Your task to perform on an android device: Open Google Chrome Image 0: 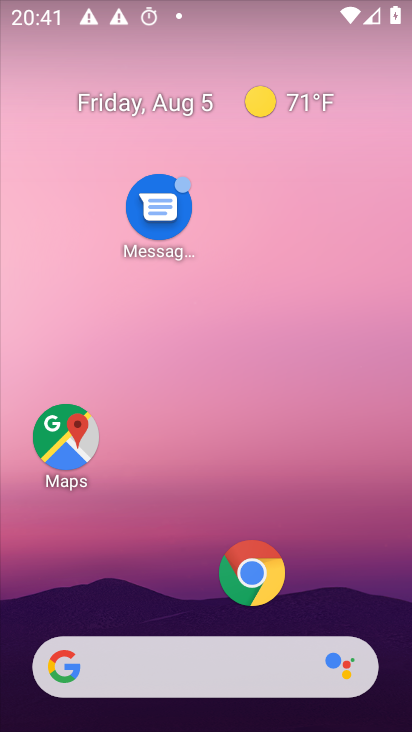
Step 0: press home button
Your task to perform on an android device: Open Google Chrome Image 1: 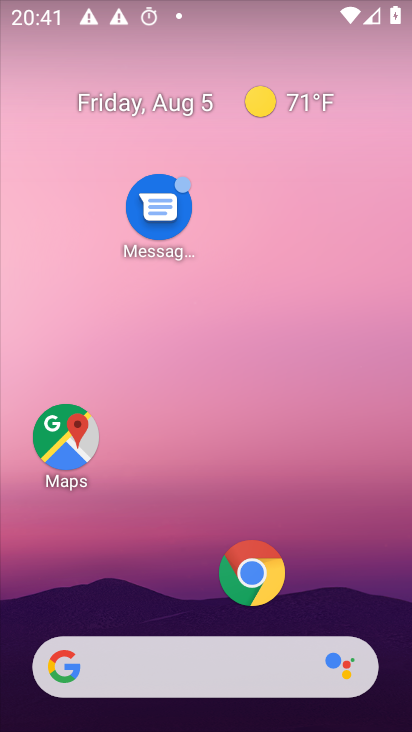
Step 1: click (248, 566)
Your task to perform on an android device: Open Google Chrome Image 2: 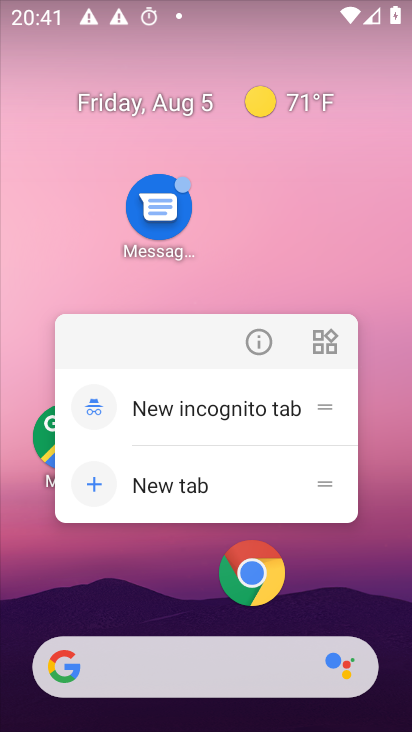
Step 2: click (245, 564)
Your task to perform on an android device: Open Google Chrome Image 3: 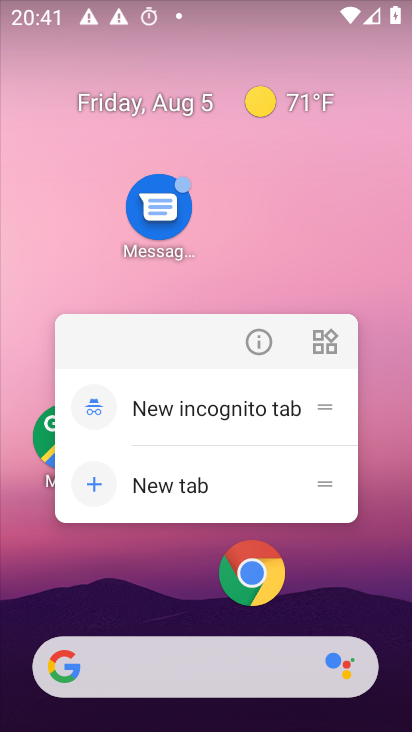
Step 3: click (316, 588)
Your task to perform on an android device: Open Google Chrome Image 4: 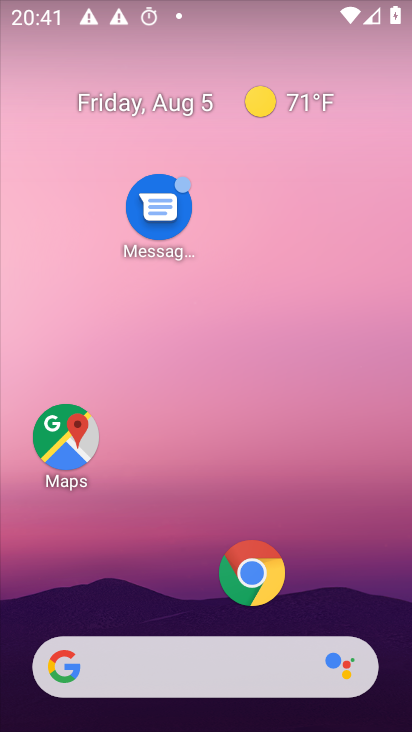
Step 4: drag from (332, 624) to (329, 4)
Your task to perform on an android device: Open Google Chrome Image 5: 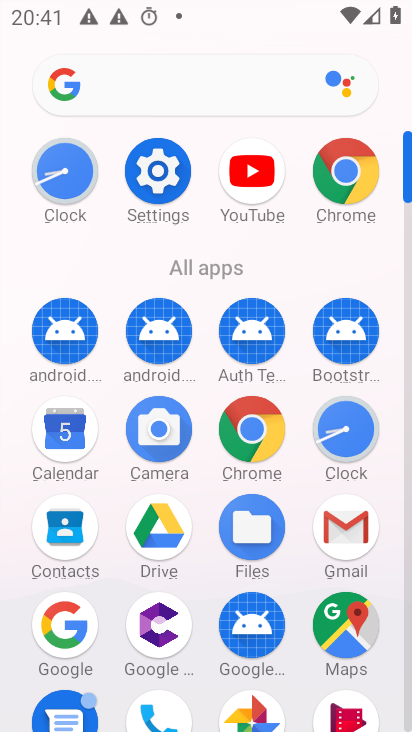
Step 5: click (342, 163)
Your task to perform on an android device: Open Google Chrome Image 6: 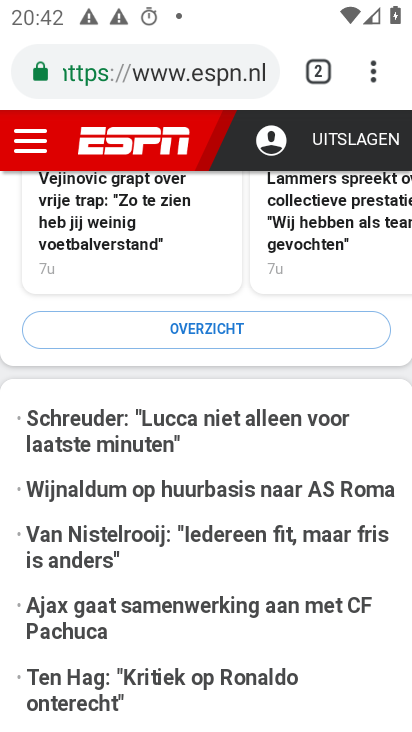
Step 6: click (319, 65)
Your task to perform on an android device: Open Google Chrome Image 7: 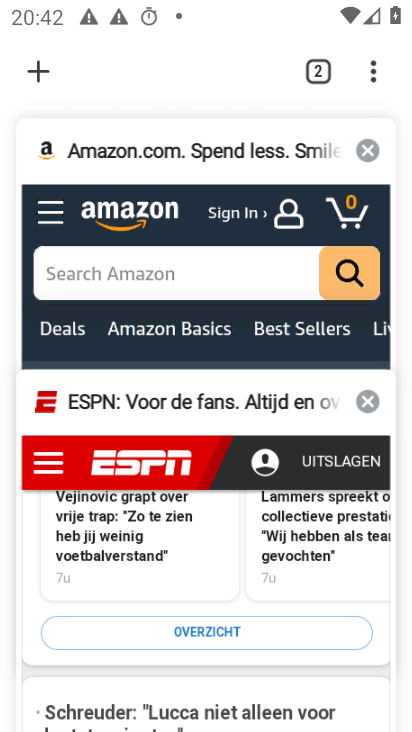
Step 7: click (41, 77)
Your task to perform on an android device: Open Google Chrome Image 8: 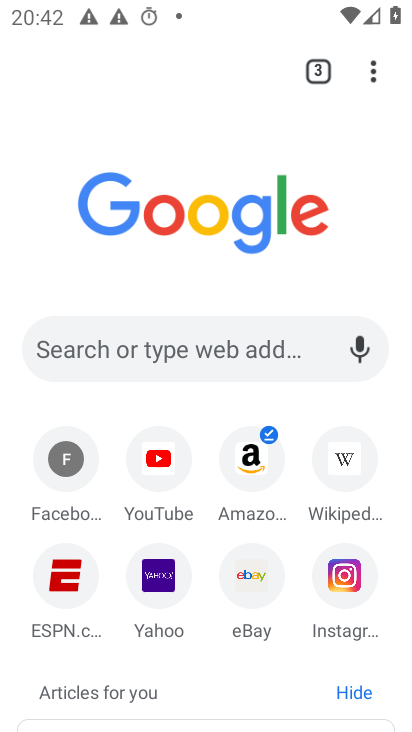
Step 8: task complete